Your task to perform on an android device: Go to settings Image 0: 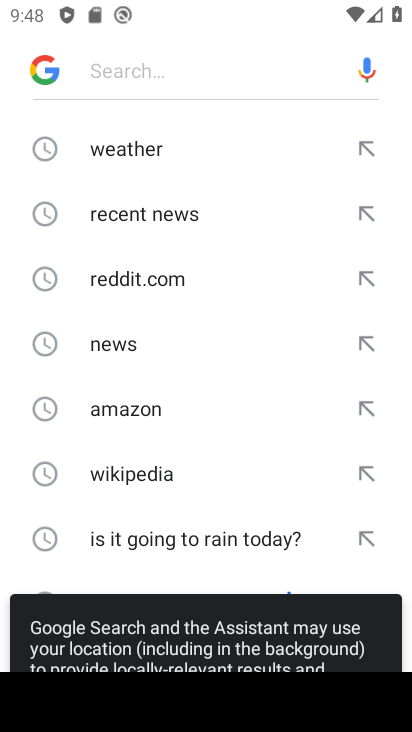
Step 0: press home button
Your task to perform on an android device: Go to settings Image 1: 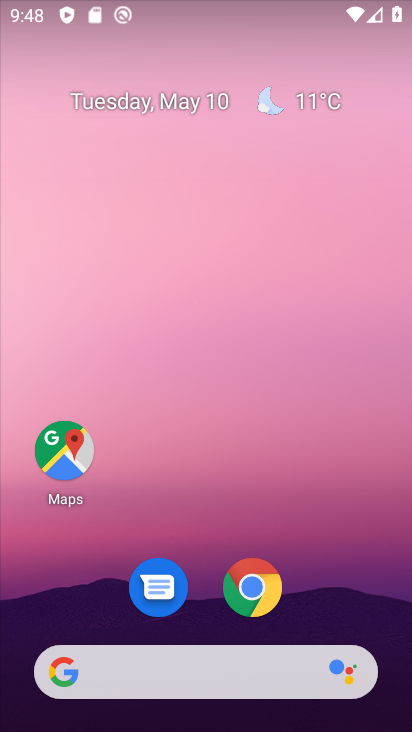
Step 1: drag from (220, 601) to (300, 12)
Your task to perform on an android device: Go to settings Image 2: 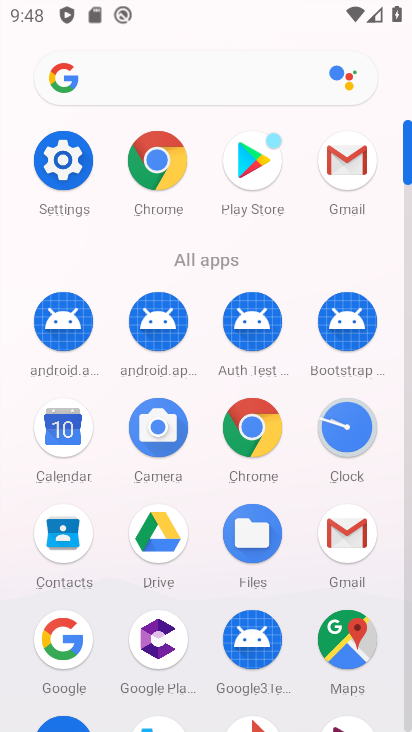
Step 2: click (58, 182)
Your task to perform on an android device: Go to settings Image 3: 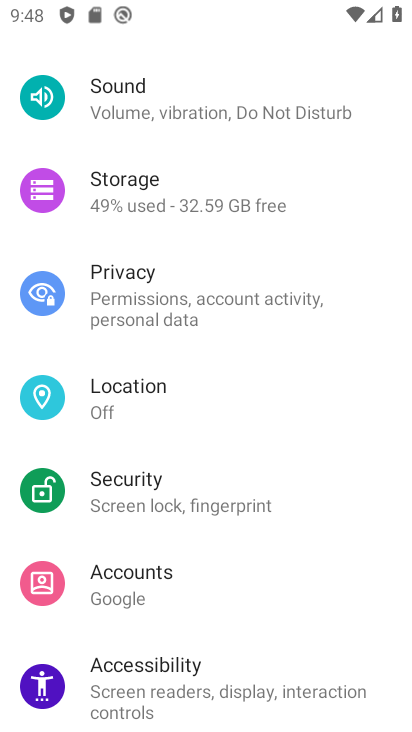
Step 3: task complete